Your task to perform on an android device: turn pop-ups off in chrome Image 0: 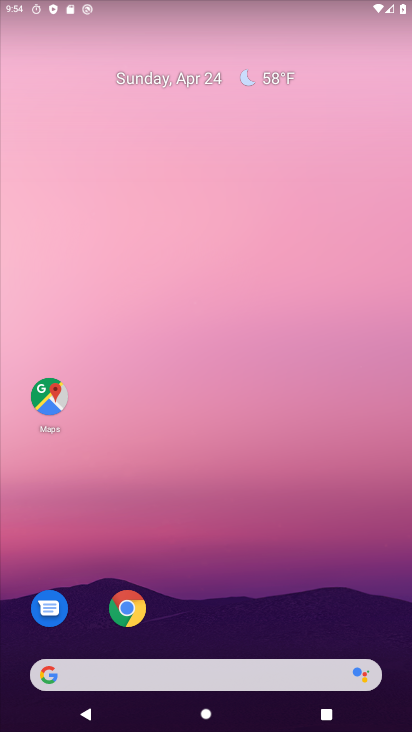
Step 0: drag from (337, 615) to (347, 69)
Your task to perform on an android device: turn pop-ups off in chrome Image 1: 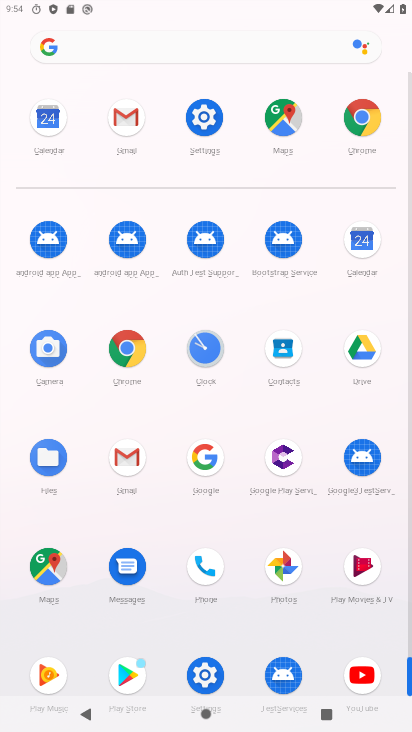
Step 1: click (361, 121)
Your task to perform on an android device: turn pop-ups off in chrome Image 2: 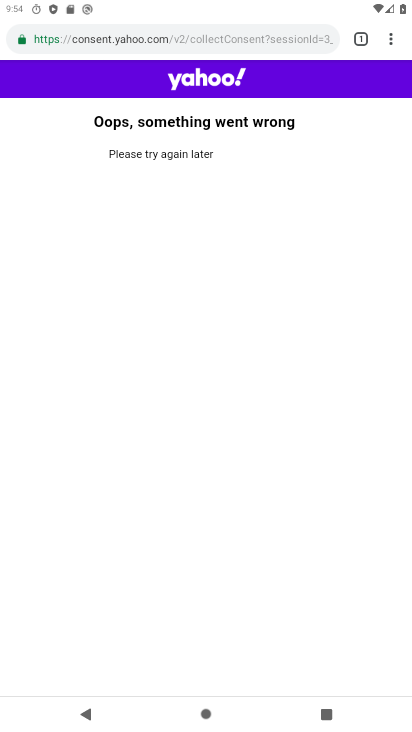
Step 2: click (390, 42)
Your task to perform on an android device: turn pop-ups off in chrome Image 3: 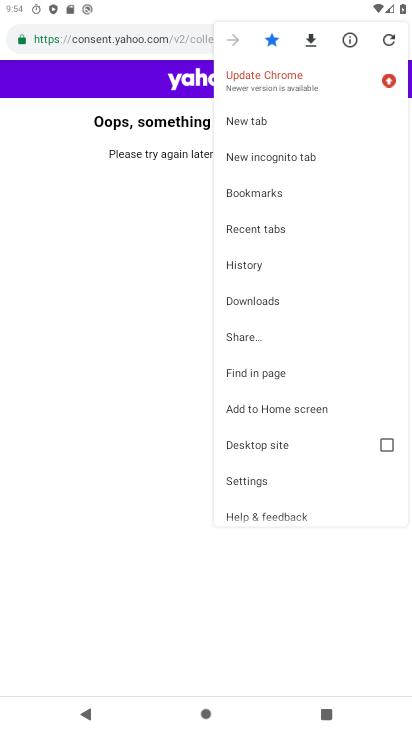
Step 3: click (281, 479)
Your task to perform on an android device: turn pop-ups off in chrome Image 4: 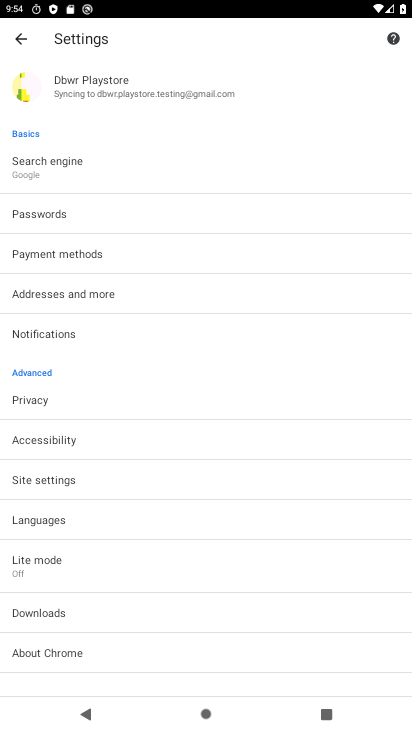
Step 4: drag from (264, 536) to (283, 246)
Your task to perform on an android device: turn pop-ups off in chrome Image 5: 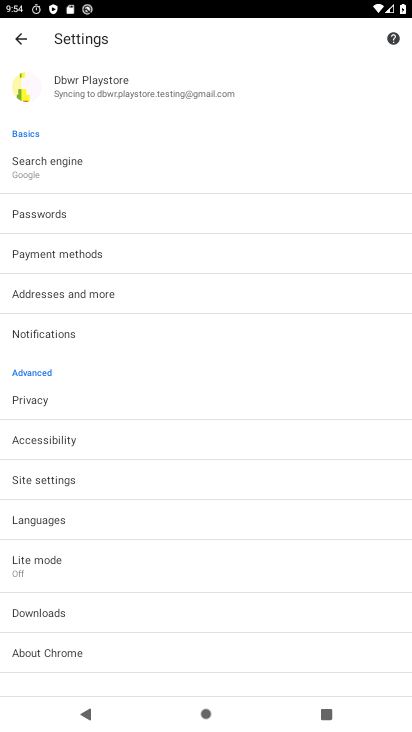
Step 5: click (261, 474)
Your task to perform on an android device: turn pop-ups off in chrome Image 6: 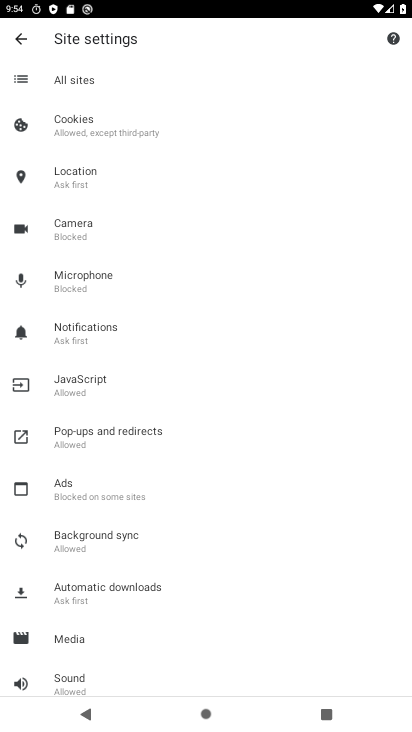
Step 6: click (152, 444)
Your task to perform on an android device: turn pop-ups off in chrome Image 7: 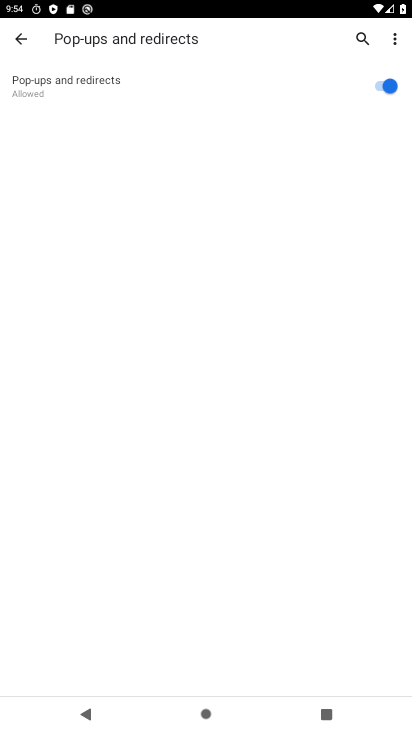
Step 7: click (391, 81)
Your task to perform on an android device: turn pop-ups off in chrome Image 8: 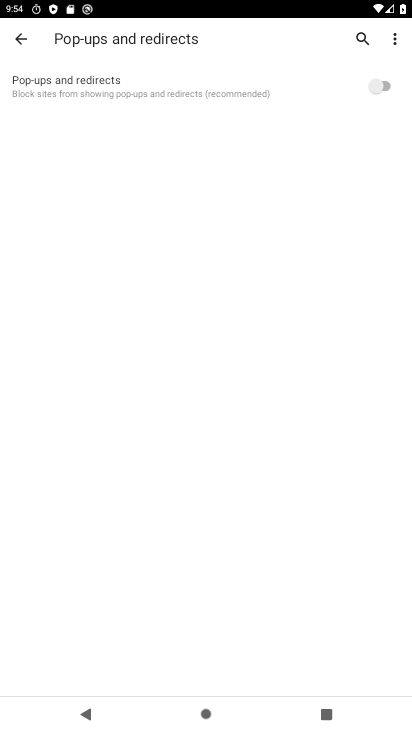
Step 8: task complete